Your task to perform on an android device: Search for Mexican restaurants on Maps Image 0: 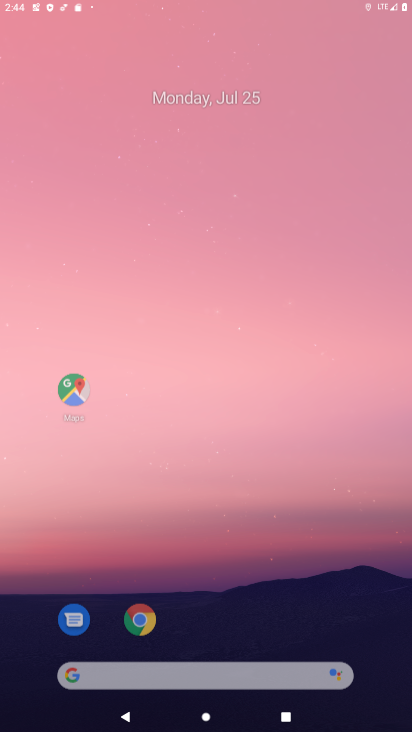
Step 0: click (260, 167)
Your task to perform on an android device: Search for Mexican restaurants on Maps Image 1: 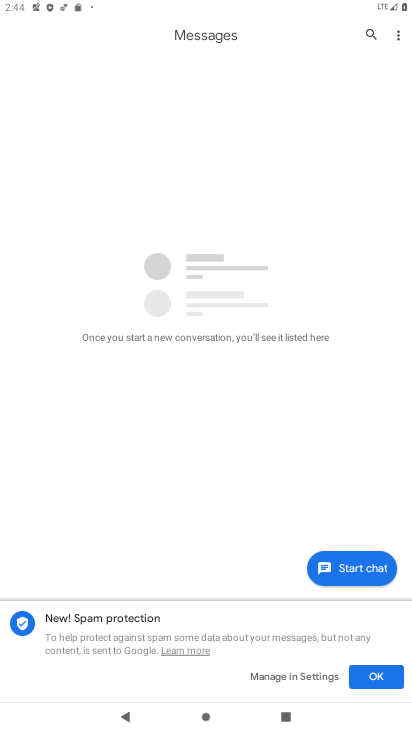
Step 1: drag from (188, 638) to (234, 101)
Your task to perform on an android device: Search for Mexican restaurants on Maps Image 2: 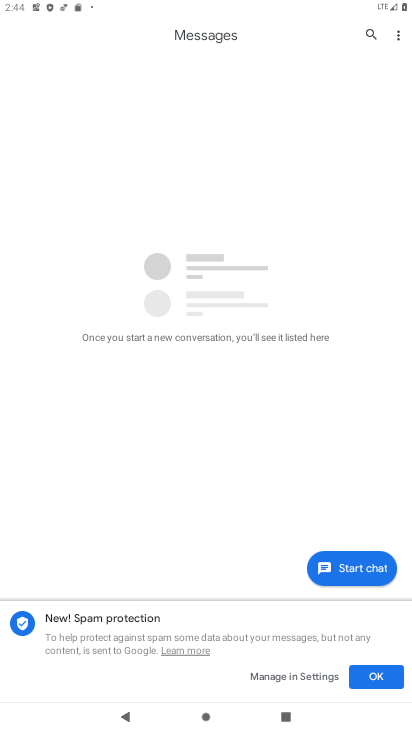
Step 2: press home button
Your task to perform on an android device: Search for Mexican restaurants on Maps Image 3: 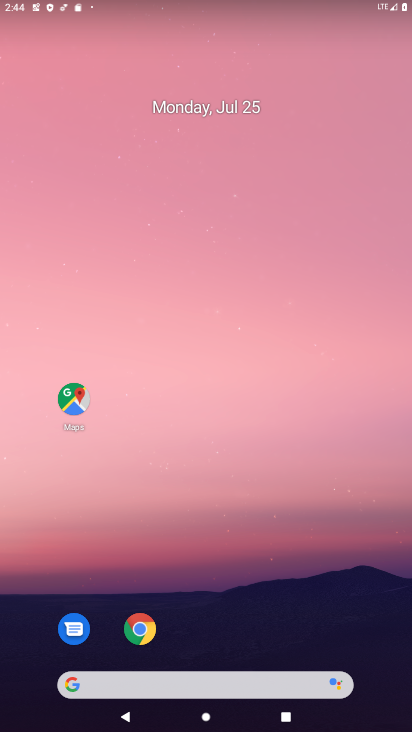
Step 3: drag from (204, 615) to (204, 138)
Your task to perform on an android device: Search for Mexican restaurants on Maps Image 4: 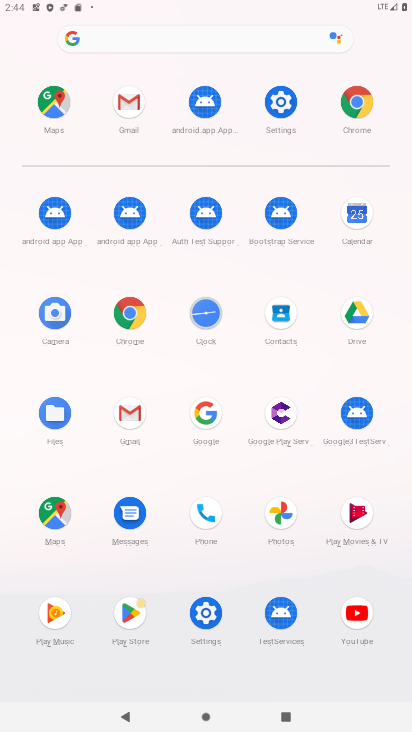
Step 4: click (50, 513)
Your task to perform on an android device: Search for Mexican restaurants on Maps Image 5: 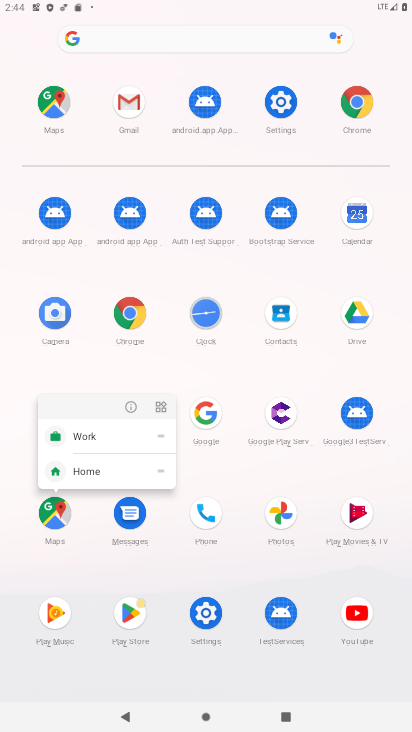
Step 5: click (126, 400)
Your task to perform on an android device: Search for Mexican restaurants on Maps Image 6: 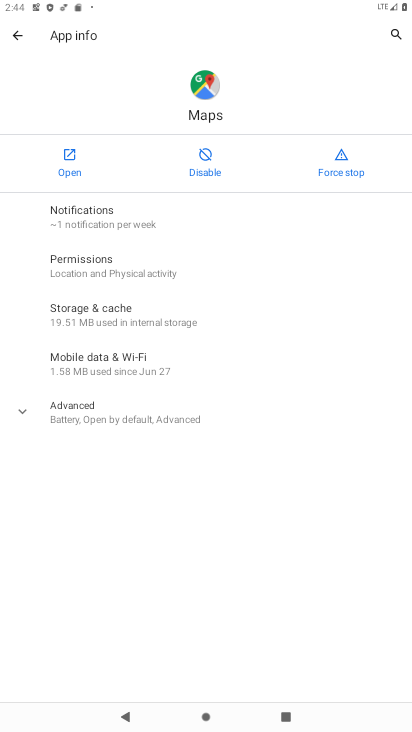
Step 6: click (65, 149)
Your task to perform on an android device: Search for Mexican restaurants on Maps Image 7: 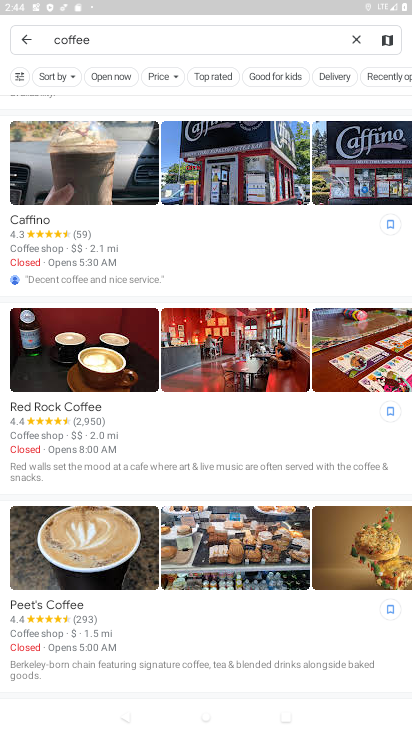
Step 7: click (357, 41)
Your task to perform on an android device: Search for Mexican restaurants on Maps Image 8: 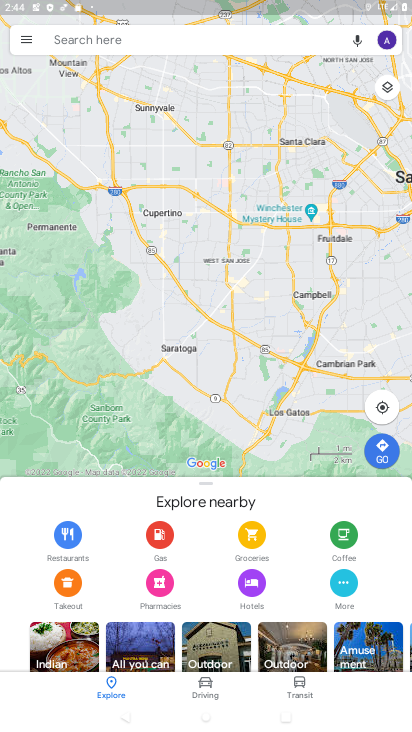
Step 8: click (80, 40)
Your task to perform on an android device: Search for Mexican restaurants on Maps Image 9: 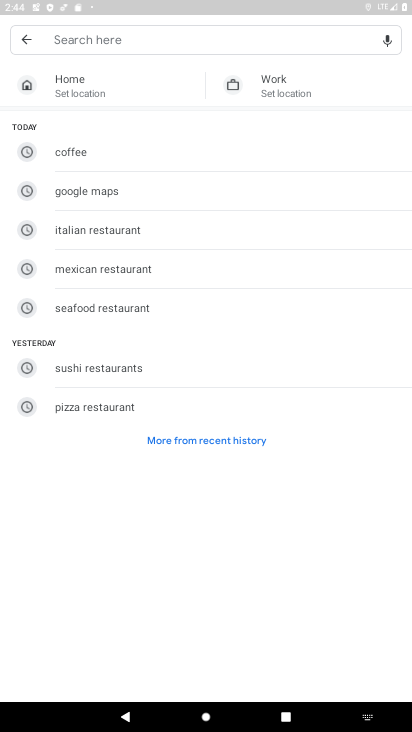
Step 9: click (111, 269)
Your task to perform on an android device: Search for Mexican restaurants on Maps Image 10: 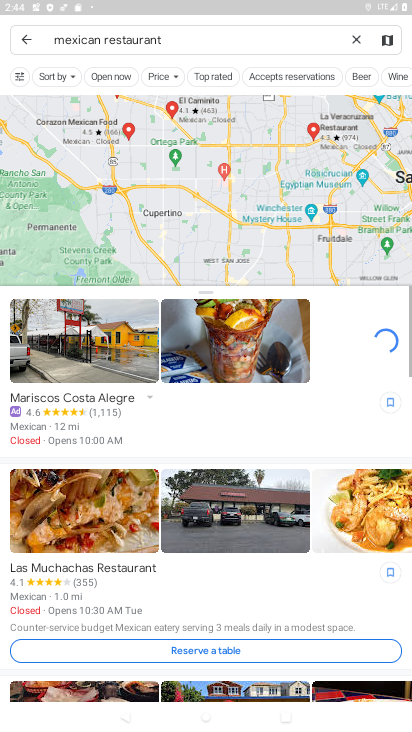
Step 10: task complete